Your task to perform on an android device: turn off javascript in the chrome app Image 0: 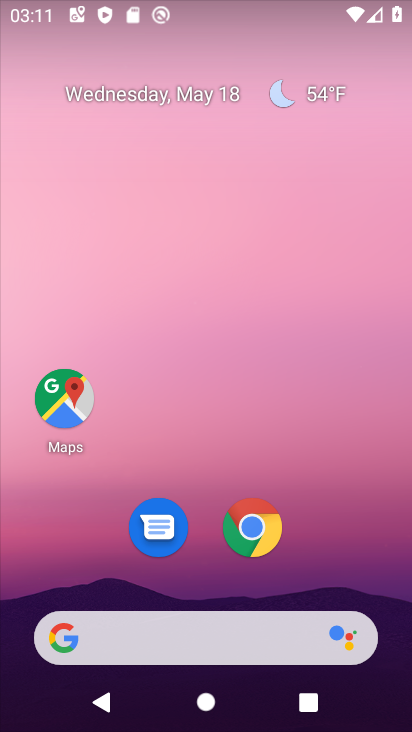
Step 0: click (274, 525)
Your task to perform on an android device: turn off javascript in the chrome app Image 1: 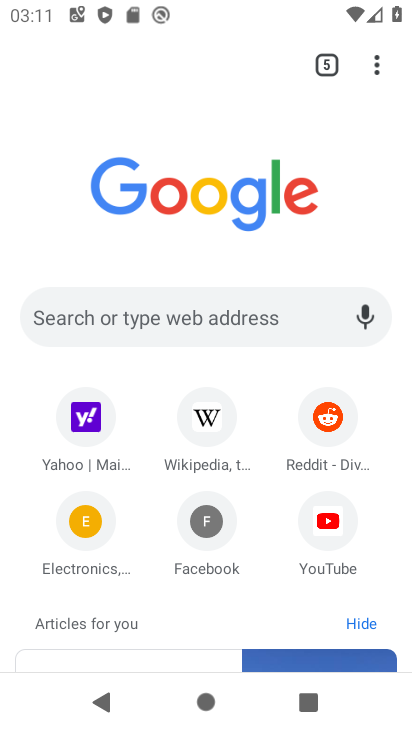
Step 1: click (386, 75)
Your task to perform on an android device: turn off javascript in the chrome app Image 2: 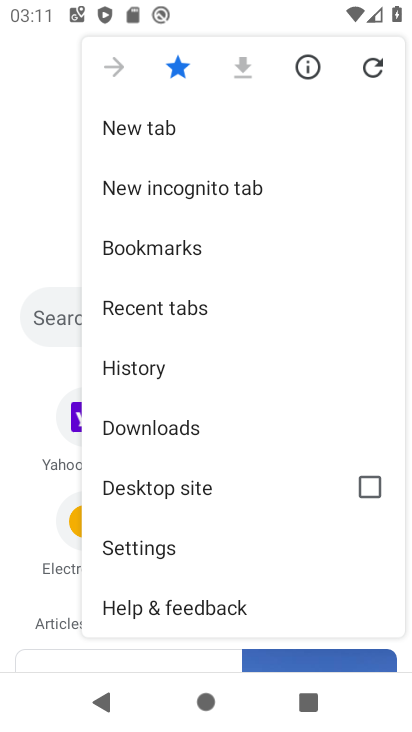
Step 2: click (176, 536)
Your task to perform on an android device: turn off javascript in the chrome app Image 3: 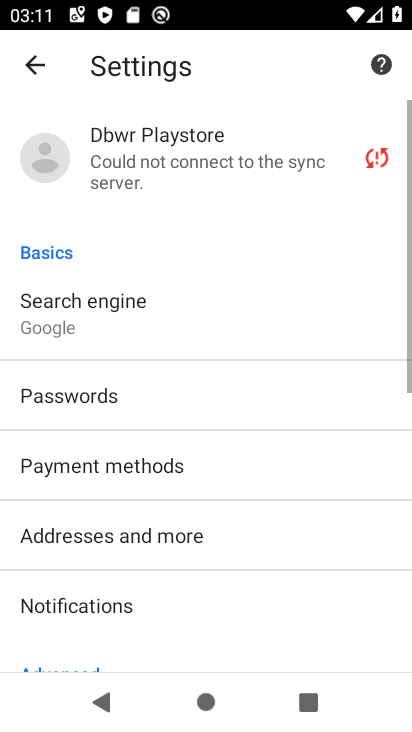
Step 3: drag from (191, 467) to (134, 10)
Your task to perform on an android device: turn off javascript in the chrome app Image 4: 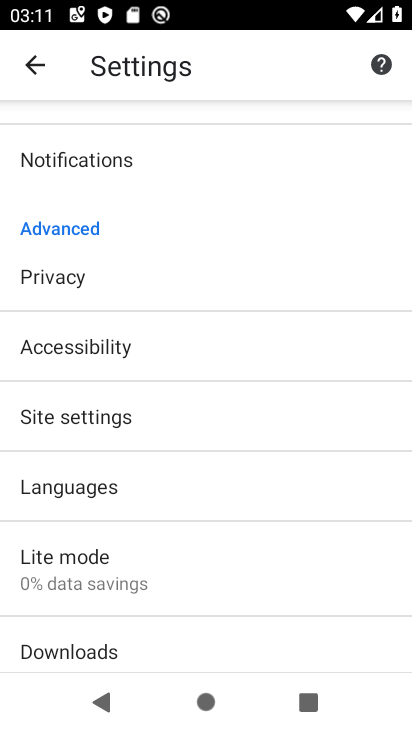
Step 4: click (104, 420)
Your task to perform on an android device: turn off javascript in the chrome app Image 5: 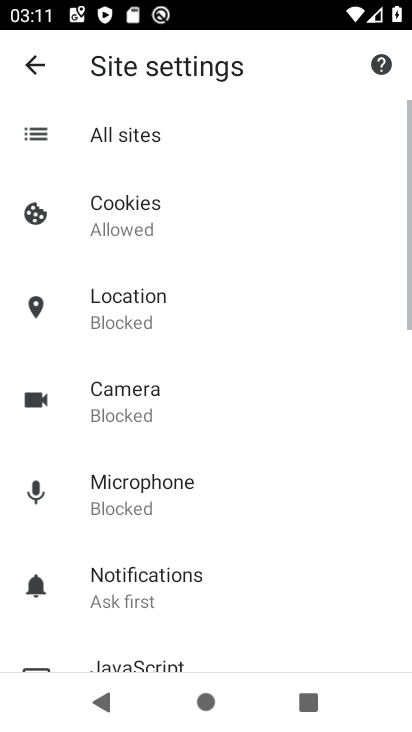
Step 5: drag from (151, 498) to (125, 113)
Your task to perform on an android device: turn off javascript in the chrome app Image 6: 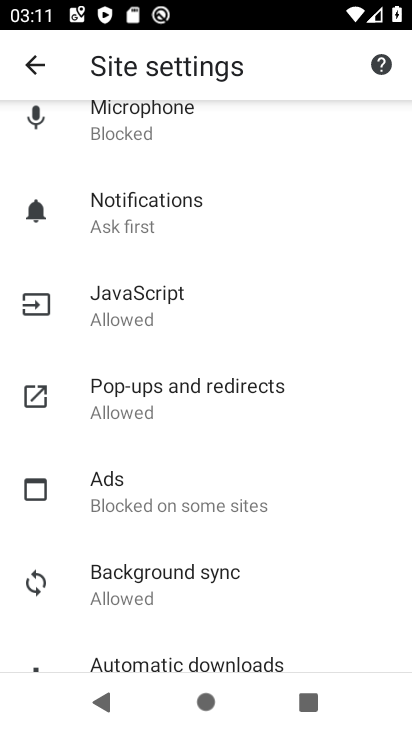
Step 6: click (154, 307)
Your task to perform on an android device: turn off javascript in the chrome app Image 7: 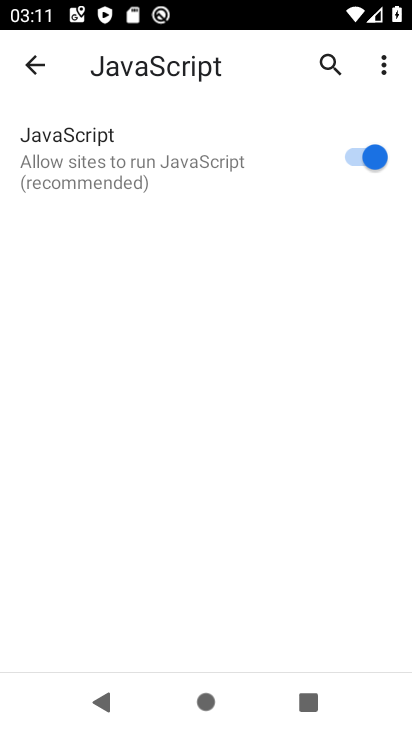
Step 7: click (355, 156)
Your task to perform on an android device: turn off javascript in the chrome app Image 8: 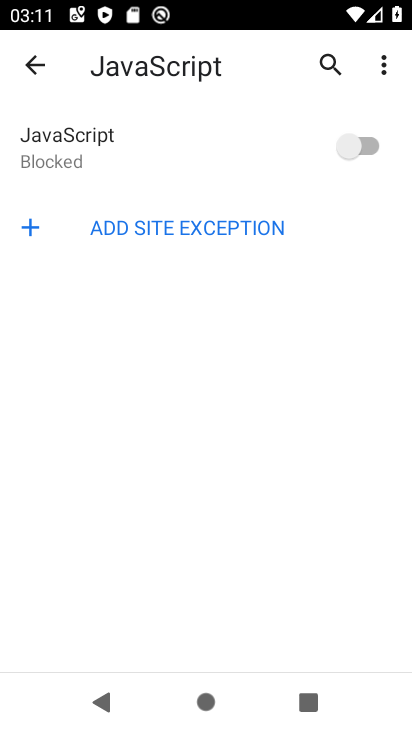
Step 8: task complete